Your task to perform on an android device: read, delete, or share a saved page in the chrome app Image 0: 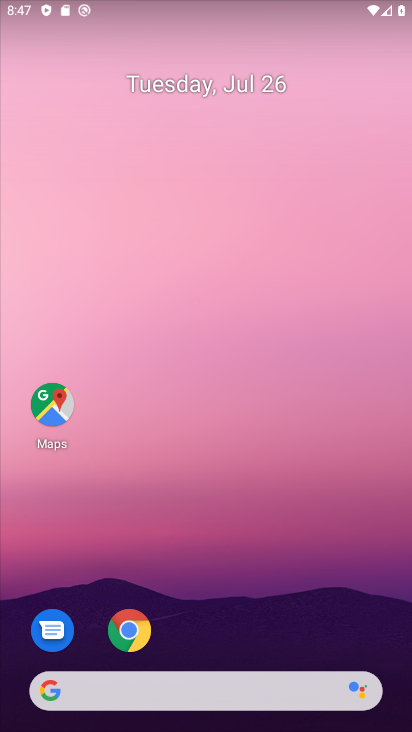
Step 0: drag from (255, 601) to (193, 55)
Your task to perform on an android device: read, delete, or share a saved page in the chrome app Image 1: 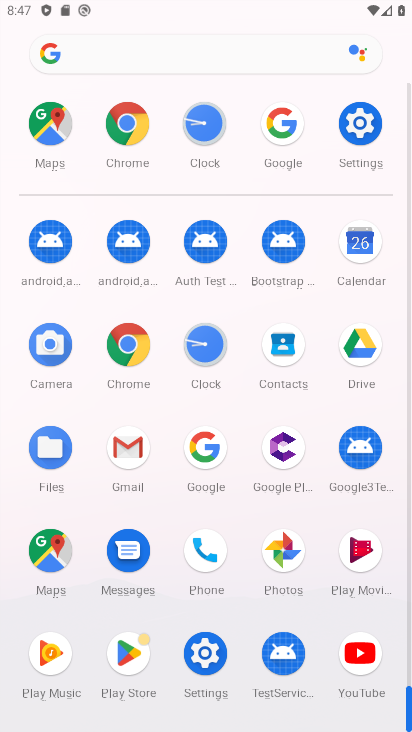
Step 1: click (121, 119)
Your task to perform on an android device: read, delete, or share a saved page in the chrome app Image 2: 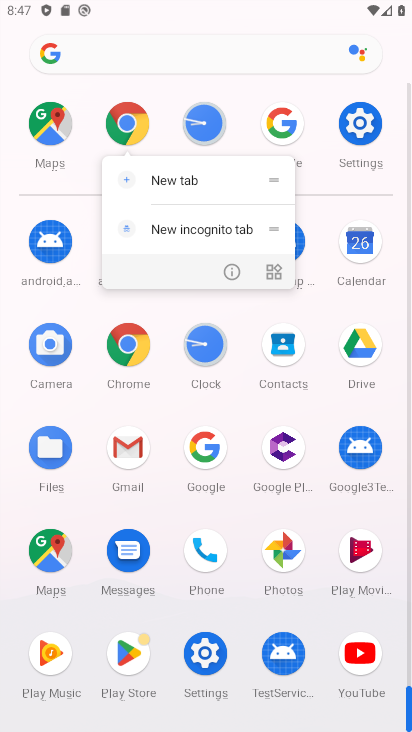
Step 2: click (121, 119)
Your task to perform on an android device: read, delete, or share a saved page in the chrome app Image 3: 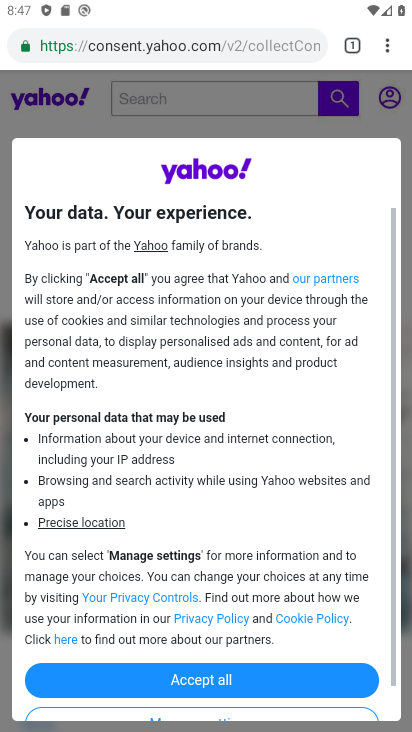
Step 3: drag from (383, 46) to (227, 298)
Your task to perform on an android device: read, delete, or share a saved page in the chrome app Image 4: 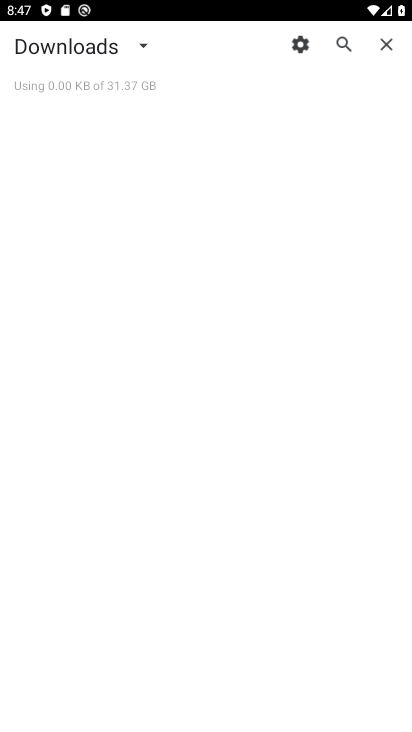
Step 4: click (144, 54)
Your task to perform on an android device: read, delete, or share a saved page in the chrome app Image 5: 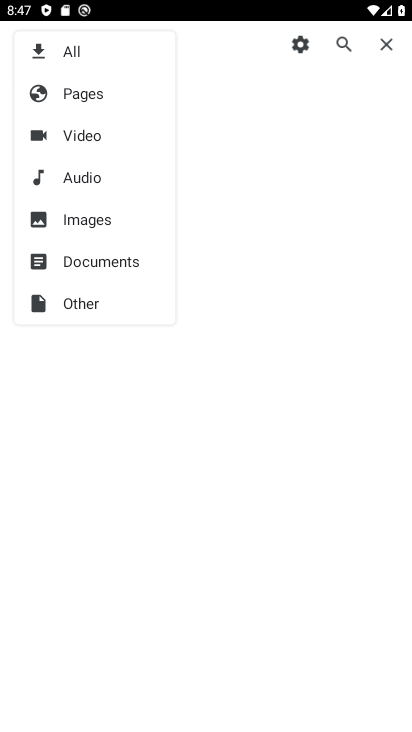
Step 5: click (50, 103)
Your task to perform on an android device: read, delete, or share a saved page in the chrome app Image 6: 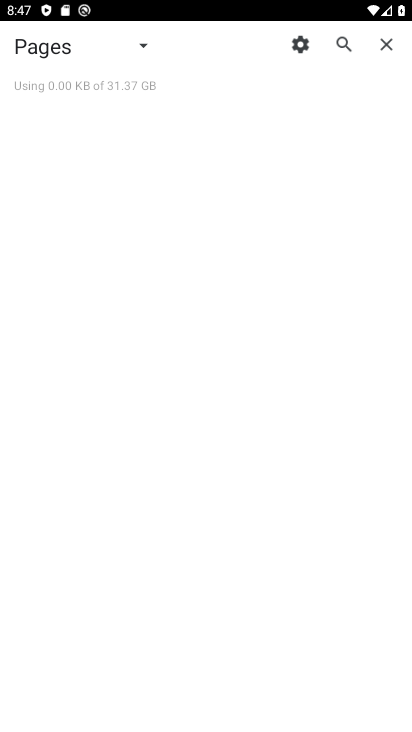
Step 6: task complete